Your task to perform on an android device: Open notification settings Image 0: 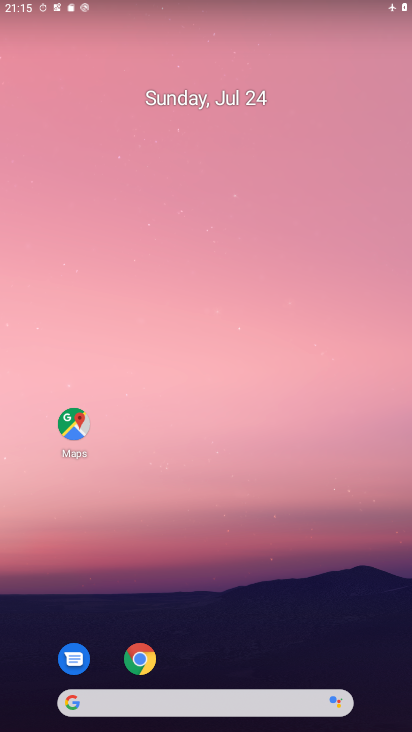
Step 0: drag from (212, 723) to (213, 203)
Your task to perform on an android device: Open notification settings Image 1: 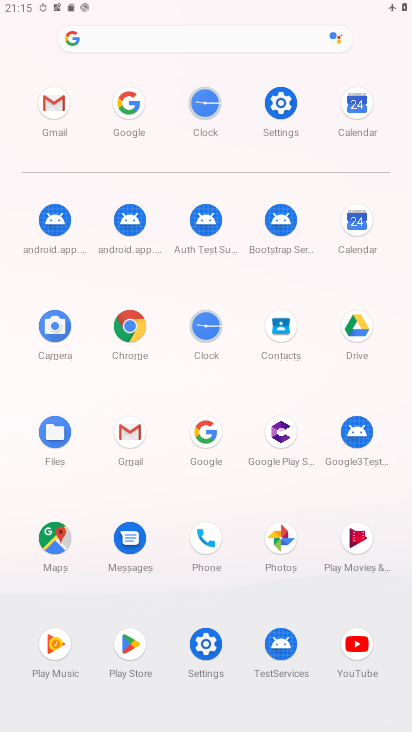
Step 1: click (283, 98)
Your task to perform on an android device: Open notification settings Image 2: 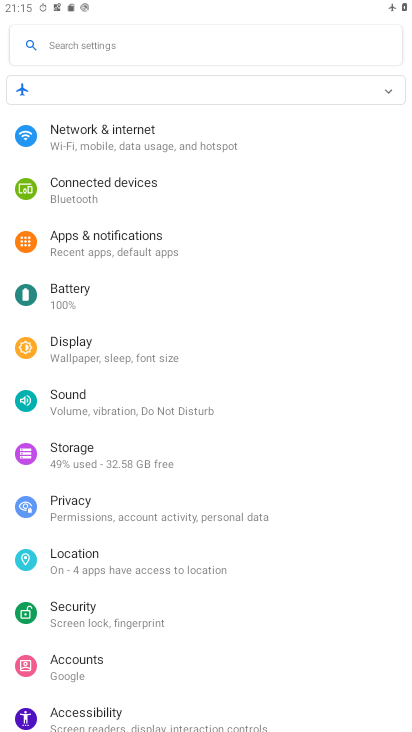
Step 2: click (112, 241)
Your task to perform on an android device: Open notification settings Image 3: 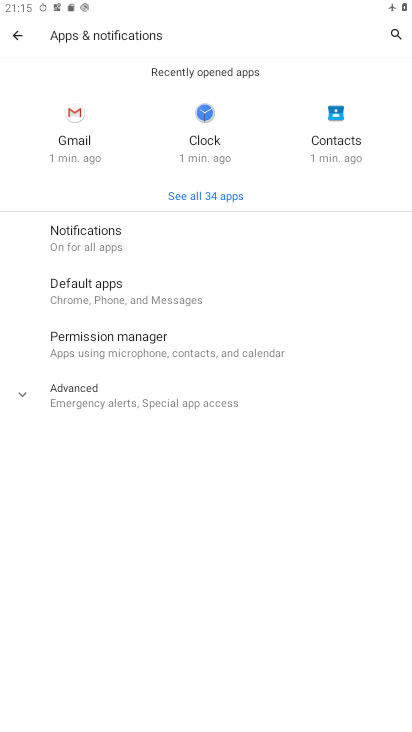
Step 3: click (82, 233)
Your task to perform on an android device: Open notification settings Image 4: 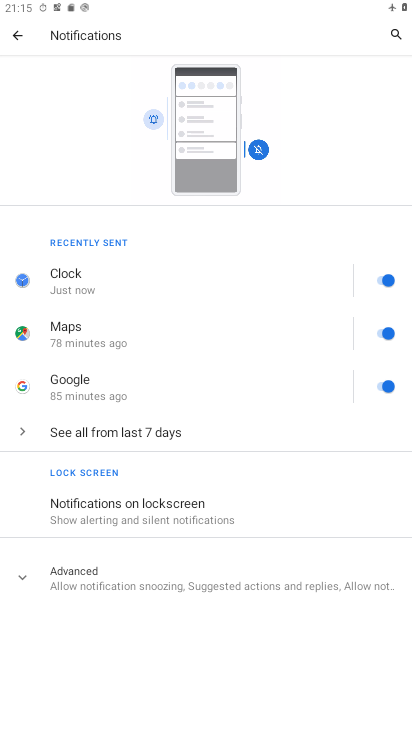
Step 4: task complete